Your task to perform on an android device: check android version Image 0: 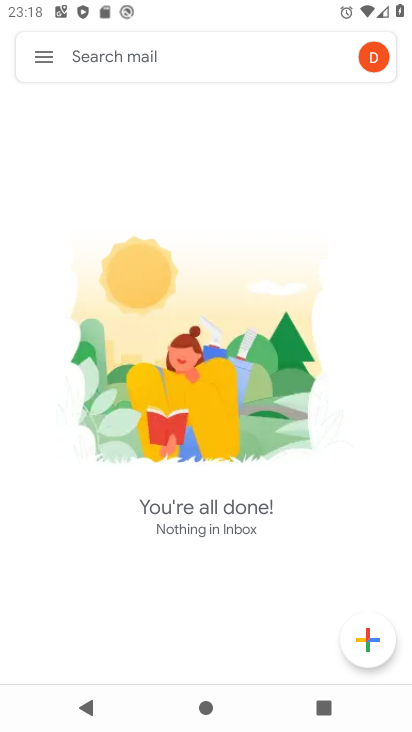
Step 0: press home button
Your task to perform on an android device: check android version Image 1: 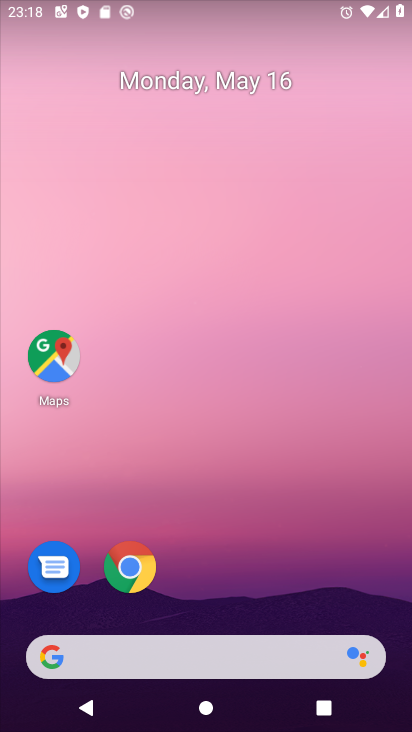
Step 1: drag from (256, 544) to (213, 204)
Your task to perform on an android device: check android version Image 2: 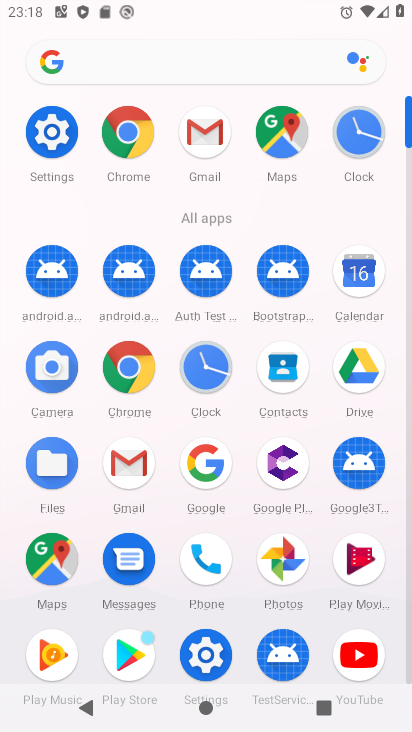
Step 2: click (47, 129)
Your task to perform on an android device: check android version Image 3: 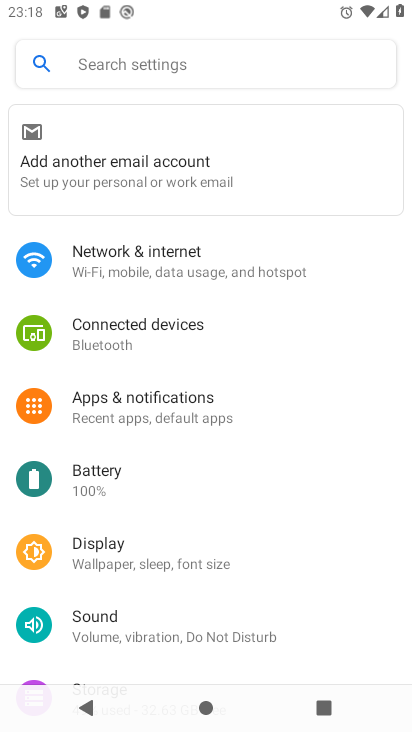
Step 3: drag from (225, 533) to (221, 297)
Your task to perform on an android device: check android version Image 4: 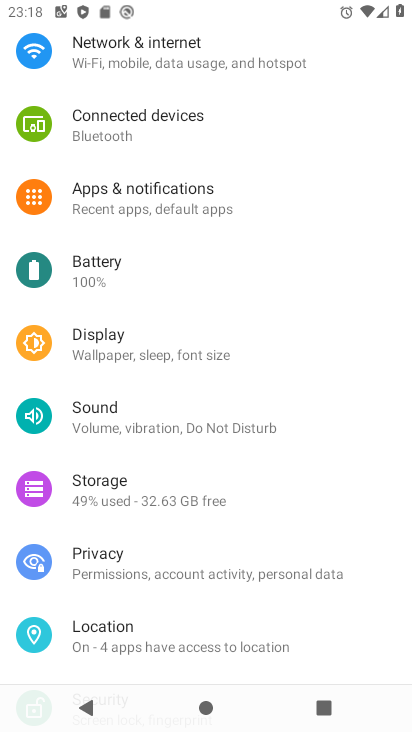
Step 4: drag from (249, 488) to (249, 190)
Your task to perform on an android device: check android version Image 5: 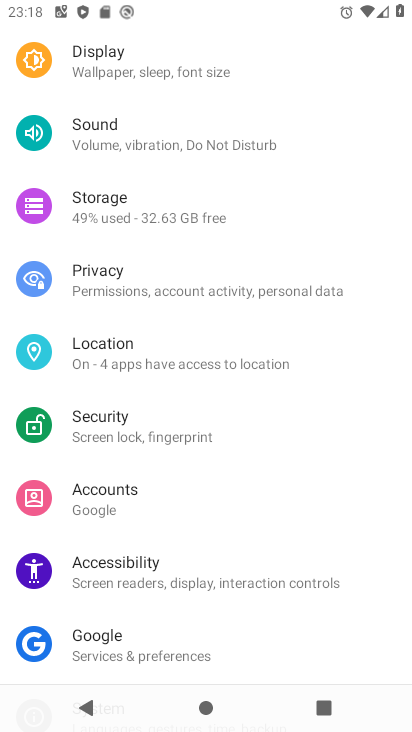
Step 5: drag from (247, 485) to (247, 204)
Your task to perform on an android device: check android version Image 6: 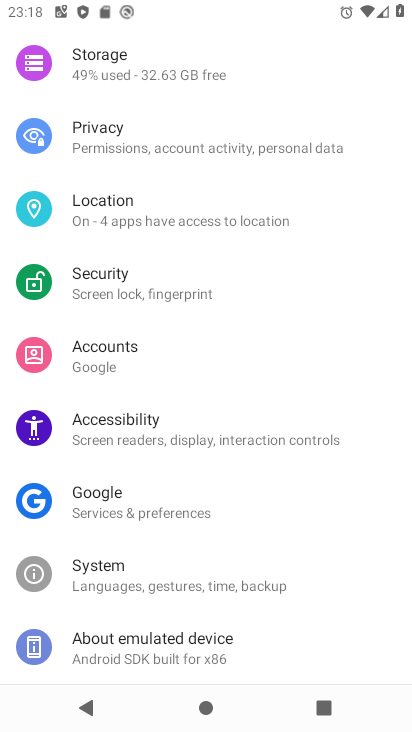
Step 6: drag from (240, 535) to (236, 247)
Your task to perform on an android device: check android version Image 7: 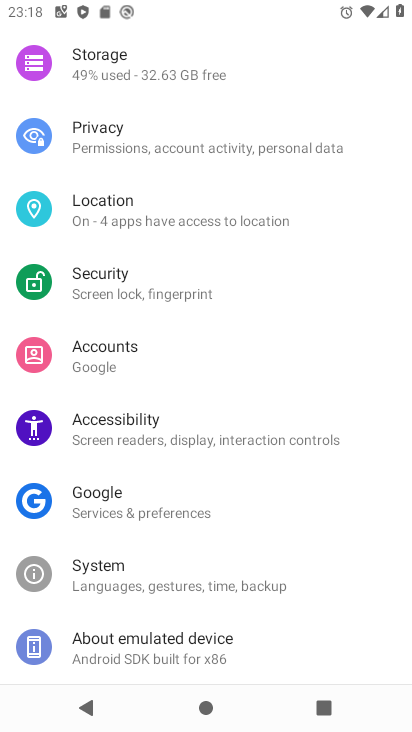
Step 7: click (136, 636)
Your task to perform on an android device: check android version Image 8: 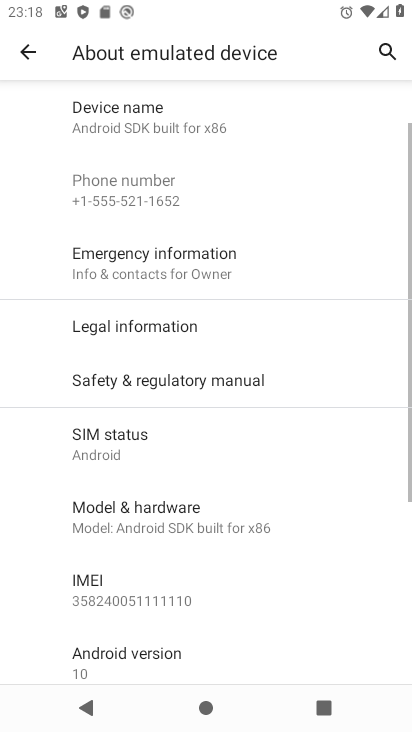
Step 8: task complete